Your task to perform on an android device: What is the news today? Image 0: 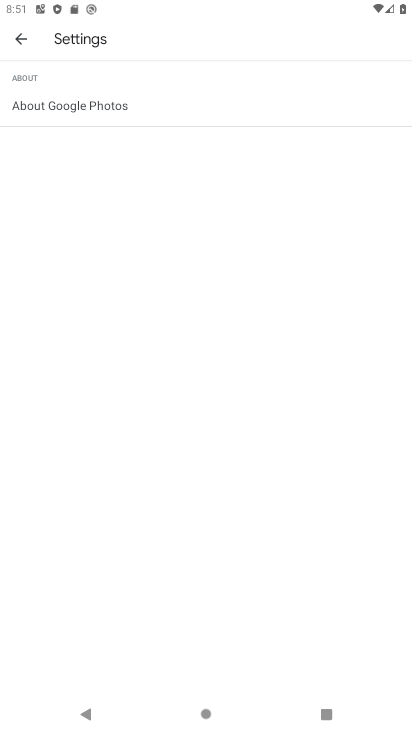
Step 0: press home button
Your task to perform on an android device: What is the news today? Image 1: 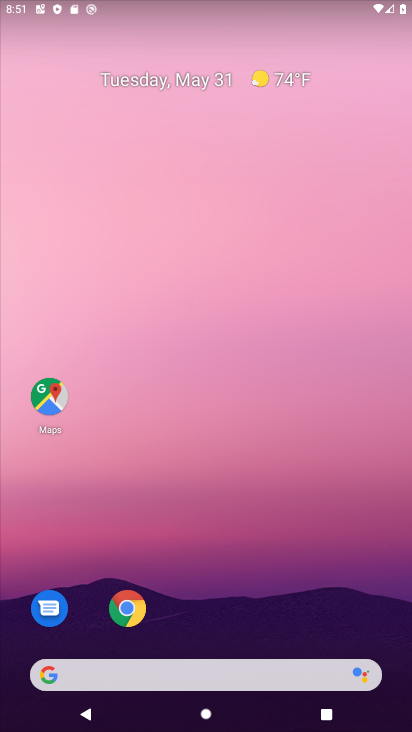
Step 1: click (219, 669)
Your task to perform on an android device: What is the news today? Image 2: 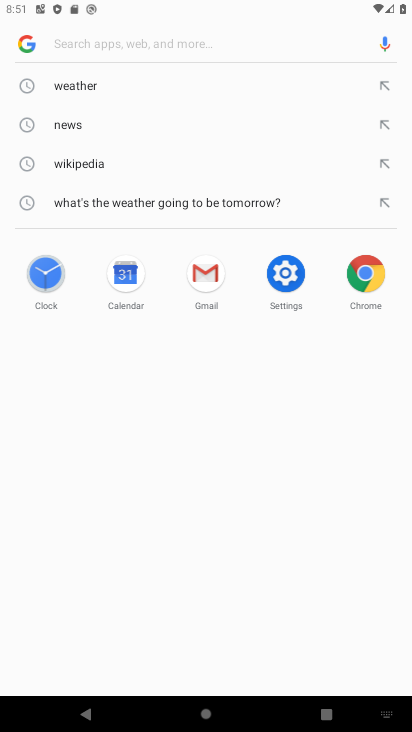
Step 2: click (83, 129)
Your task to perform on an android device: What is the news today? Image 3: 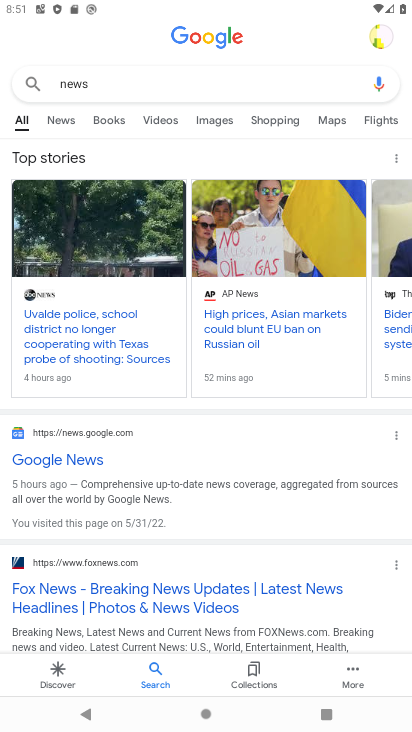
Step 3: click (14, 129)
Your task to perform on an android device: What is the news today? Image 4: 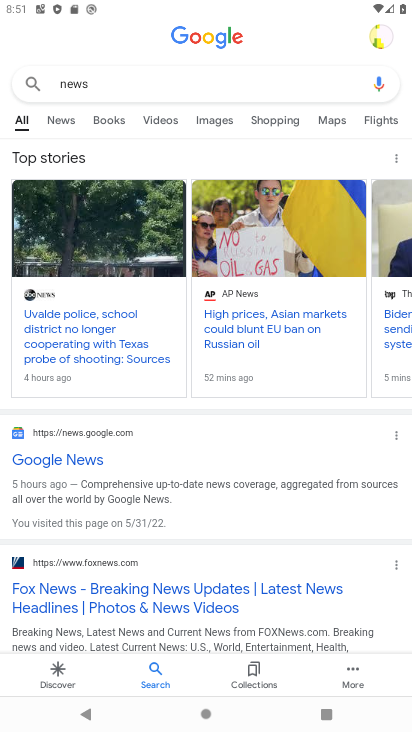
Step 4: click (58, 124)
Your task to perform on an android device: What is the news today? Image 5: 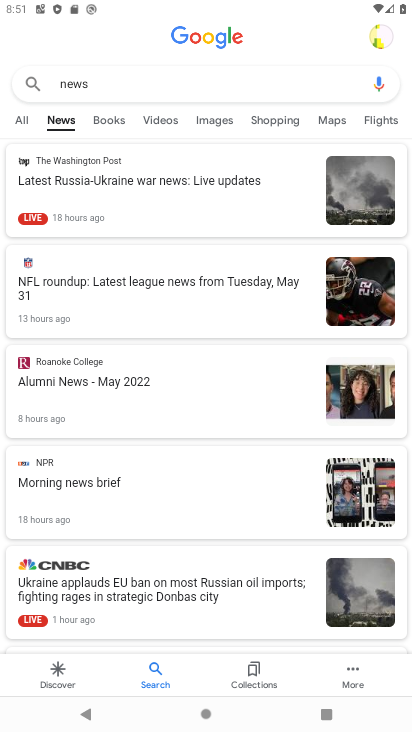
Step 5: task complete